Your task to perform on an android device: Show me popular games on the Play Store Image 0: 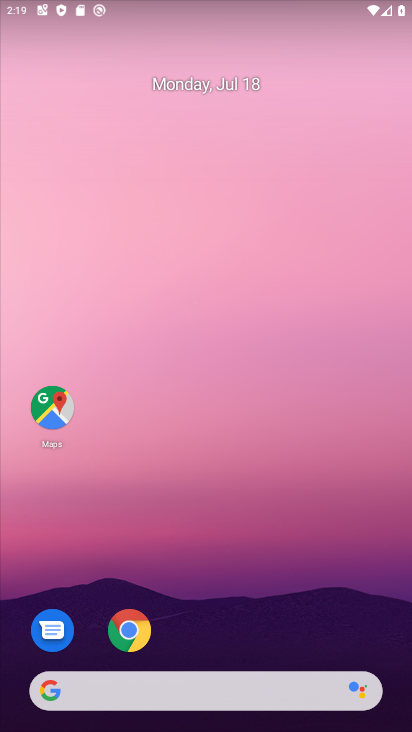
Step 0: drag from (385, 653) to (253, 0)
Your task to perform on an android device: Show me popular games on the Play Store Image 1: 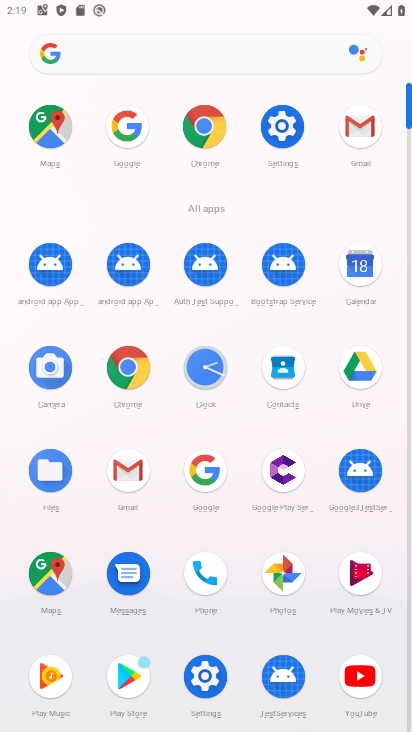
Step 1: click (143, 673)
Your task to perform on an android device: Show me popular games on the Play Store Image 2: 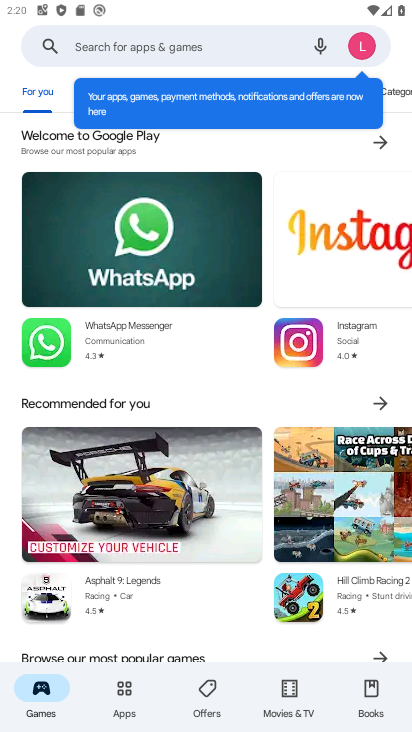
Step 2: click (103, 50)
Your task to perform on an android device: Show me popular games on the Play Store Image 3: 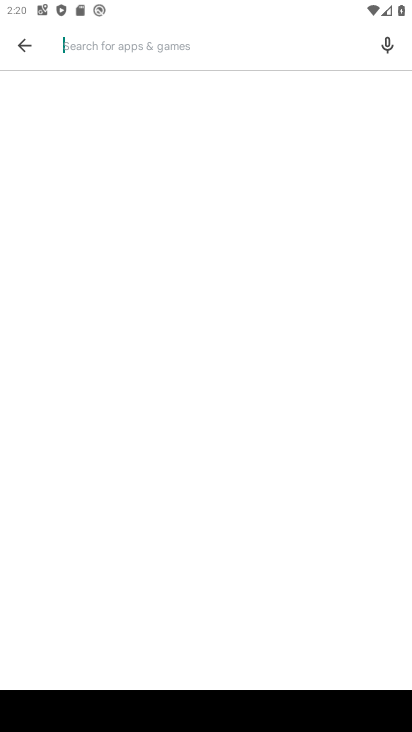
Step 3: type "popular games"
Your task to perform on an android device: Show me popular games on the Play Store Image 4: 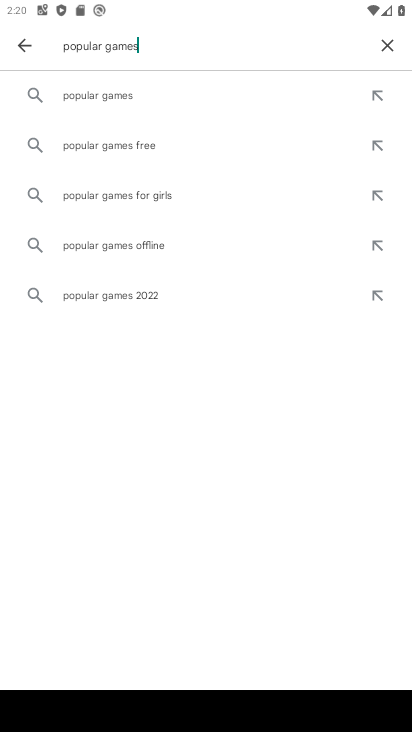
Step 4: click (129, 96)
Your task to perform on an android device: Show me popular games on the Play Store Image 5: 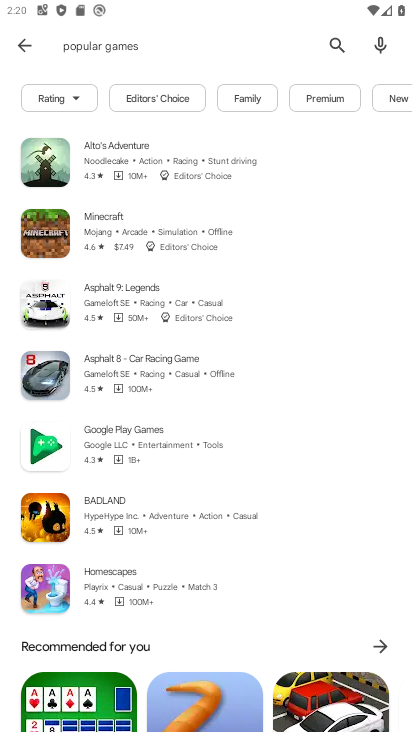
Step 5: task complete